Your task to perform on an android device: Find coffee shops on Maps Image 0: 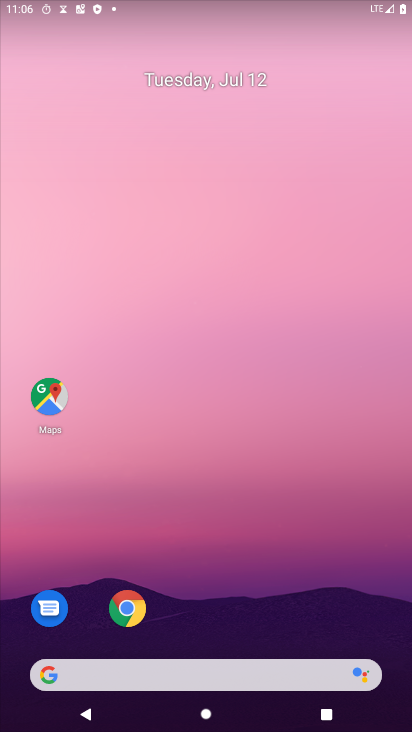
Step 0: click (38, 395)
Your task to perform on an android device: Find coffee shops on Maps Image 1: 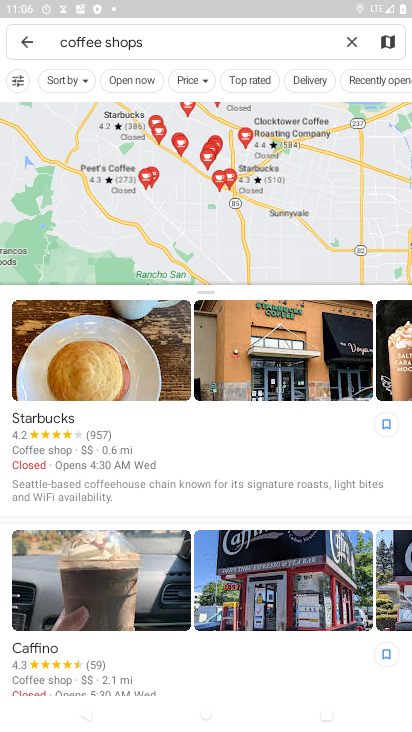
Step 1: task complete